Your task to perform on an android device: Go to sound settings Image 0: 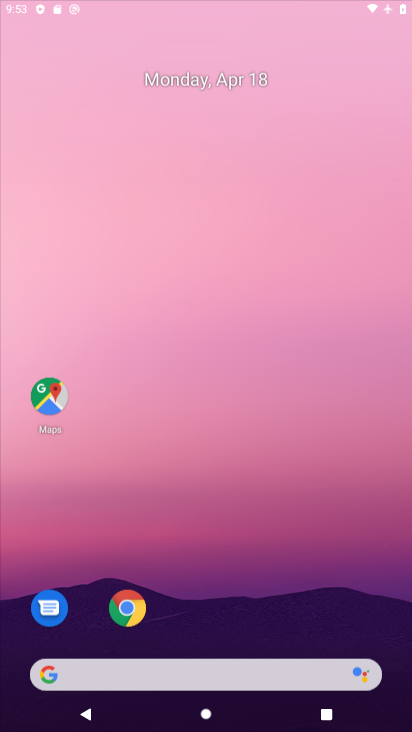
Step 0: click (330, 141)
Your task to perform on an android device: Go to sound settings Image 1: 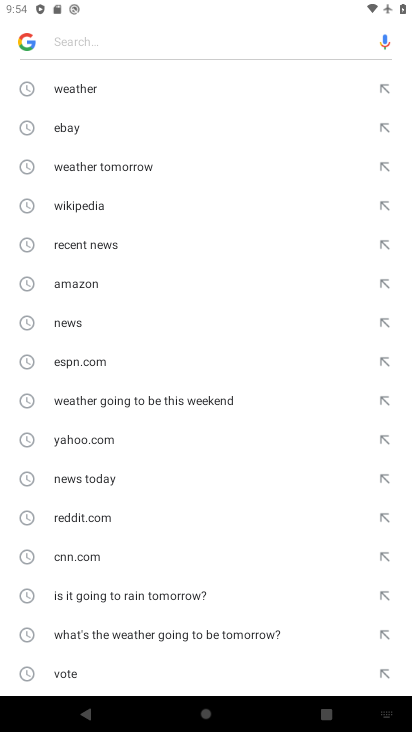
Step 1: click (117, 176)
Your task to perform on an android device: Go to sound settings Image 2: 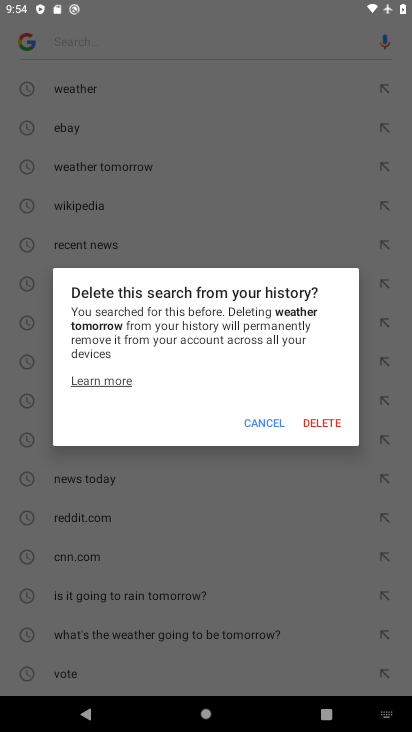
Step 2: click (267, 425)
Your task to perform on an android device: Go to sound settings Image 3: 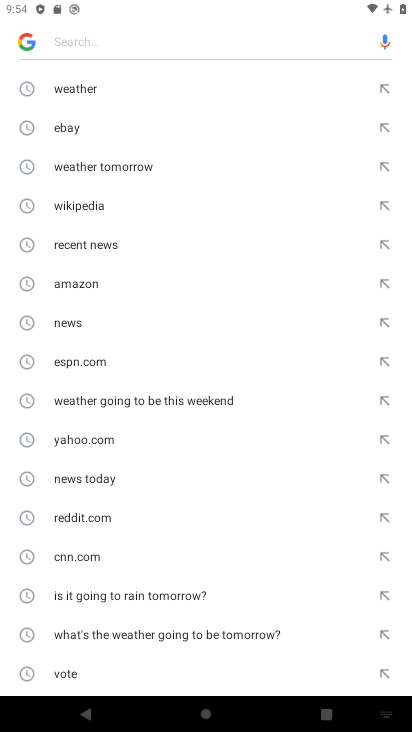
Step 3: press home button
Your task to perform on an android device: Go to sound settings Image 4: 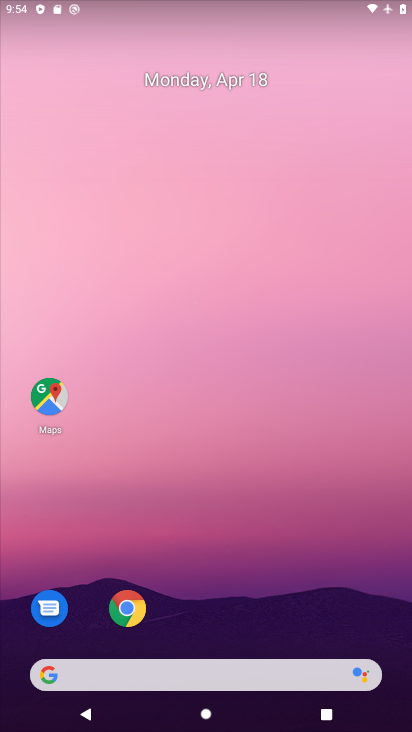
Step 4: drag from (261, 639) to (231, 201)
Your task to perform on an android device: Go to sound settings Image 5: 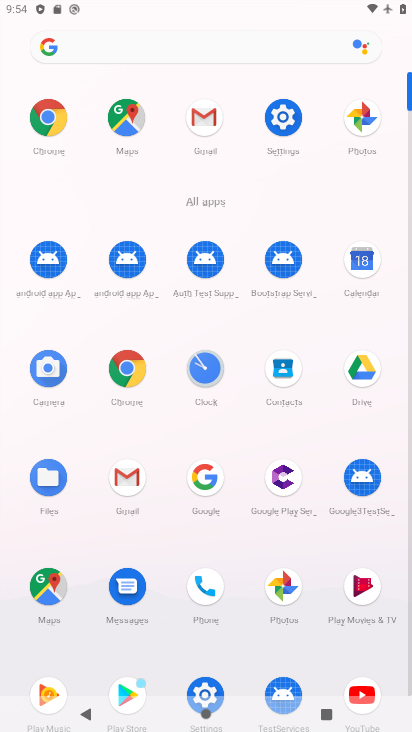
Step 5: click (280, 135)
Your task to perform on an android device: Go to sound settings Image 6: 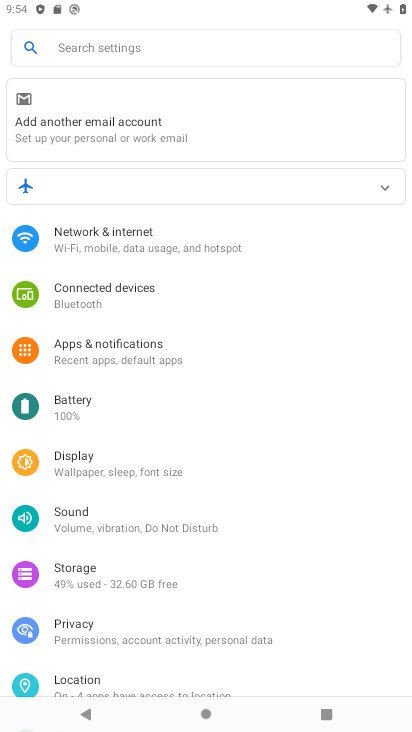
Step 6: click (85, 519)
Your task to perform on an android device: Go to sound settings Image 7: 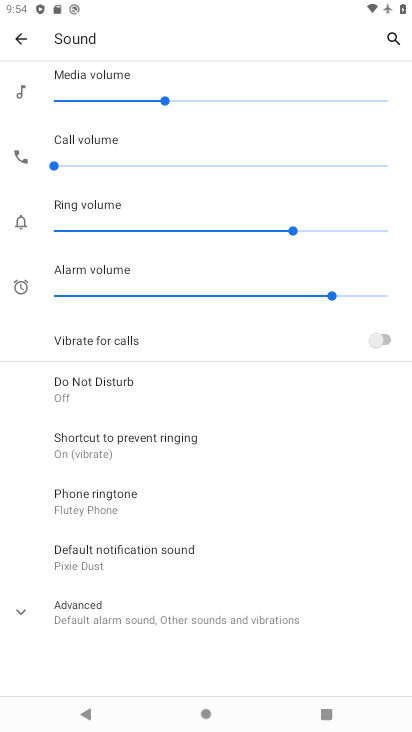
Step 7: task complete